Your task to perform on an android device: Go to CNN.com Image 0: 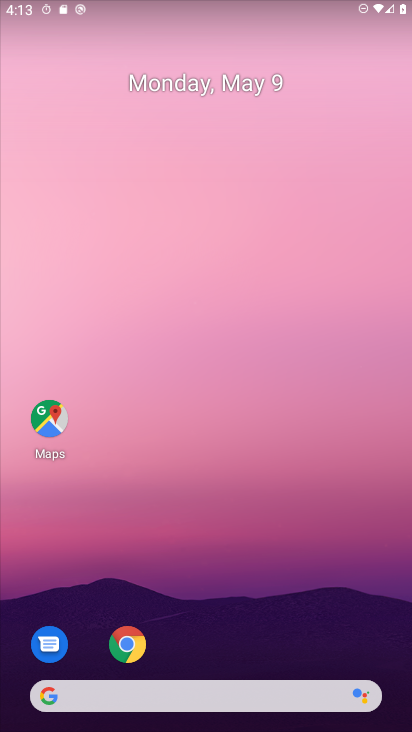
Step 0: click (130, 662)
Your task to perform on an android device: Go to CNN.com Image 1: 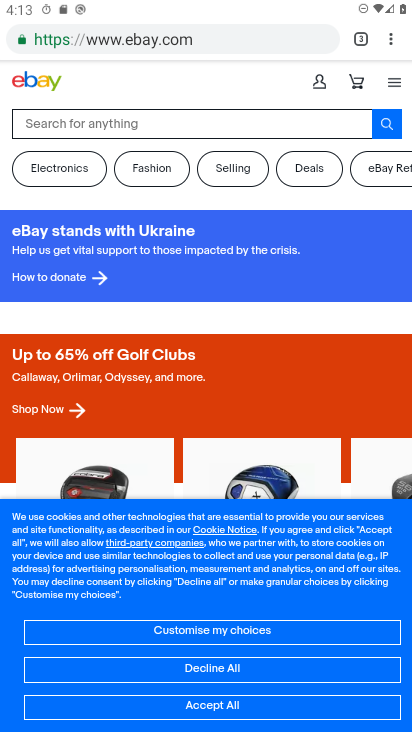
Step 1: click (199, 38)
Your task to perform on an android device: Go to CNN.com Image 2: 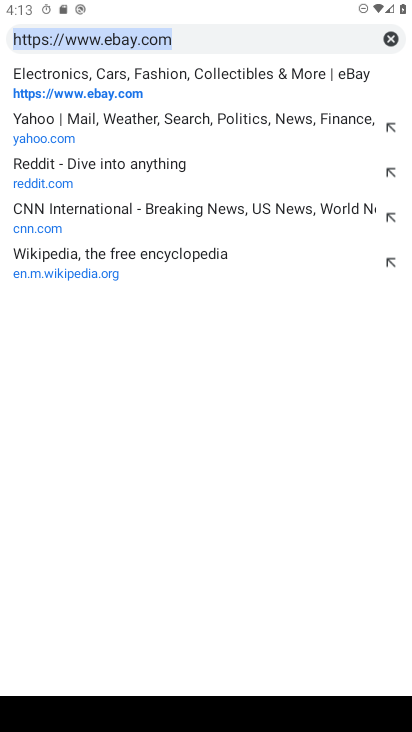
Step 2: click (70, 223)
Your task to perform on an android device: Go to CNN.com Image 3: 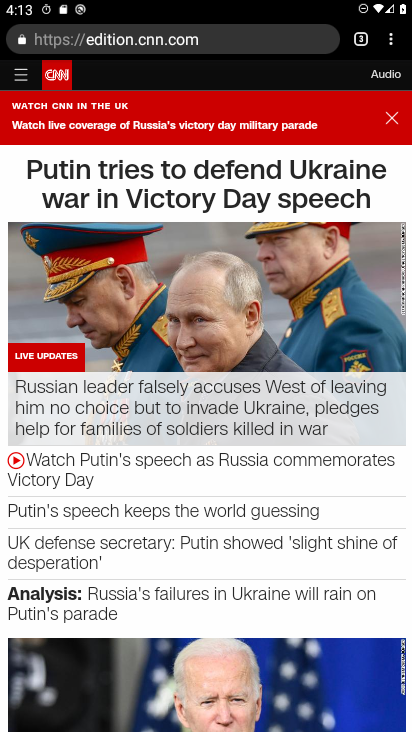
Step 3: task complete